Your task to perform on an android device: toggle improve location accuracy Image 0: 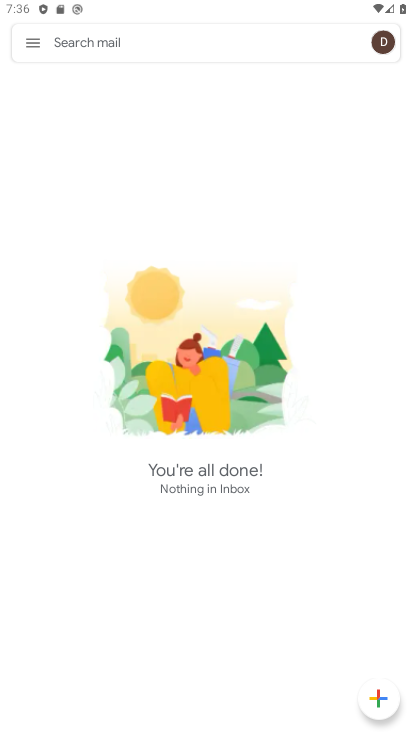
Step 0: press home button
Your task to perform on an android device: toggle improve location accuracy Image 1: 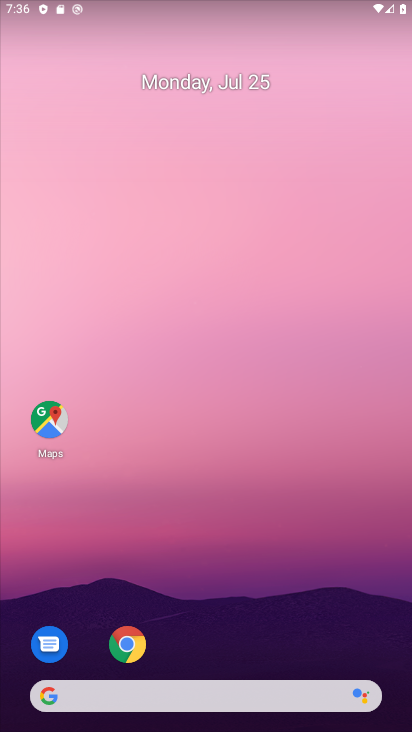
Step 1: drag from (217, 670) to (253, 197)
Your task to perform on an android device: toggle improve location accuracy Image 2: 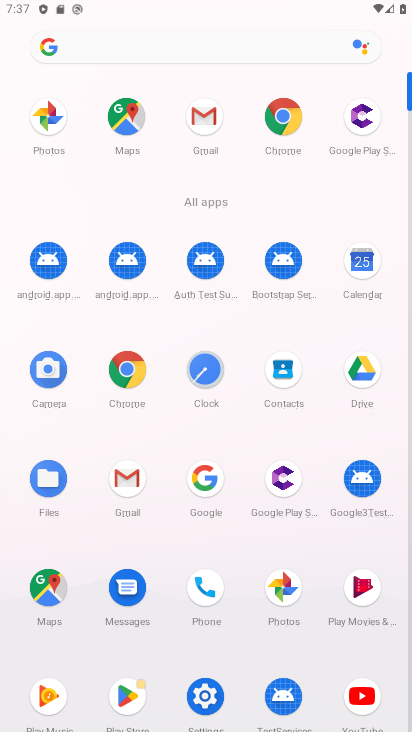
Step 2: click (201, 692)
Your task to perform on an android device: toggle improve location accuracy Image 3: 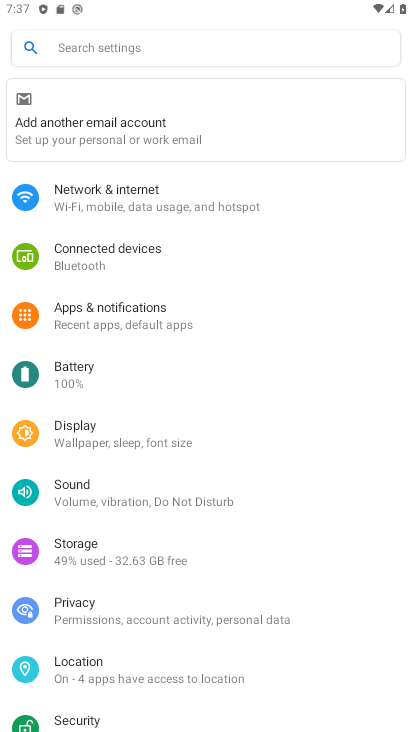
Step 3: click (112, 663)
Your task to perform on an android device: toggle improve location accuracy Image 4: 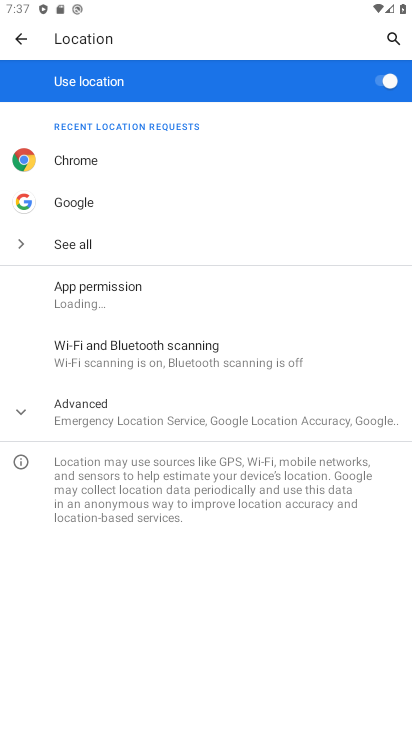
Step 4: click (178, 401)
Your task to perform on an android device: toggle improve location accuracy Image 5: 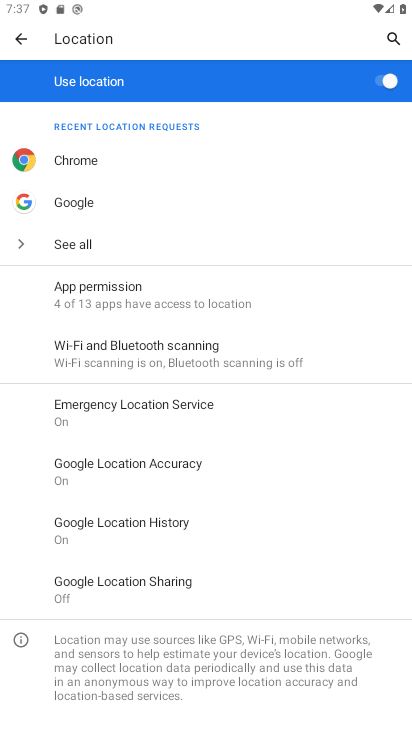
Step 5: click (166, 470)
Your task to perform on an android device: toggle improve location accuracy Image 6: 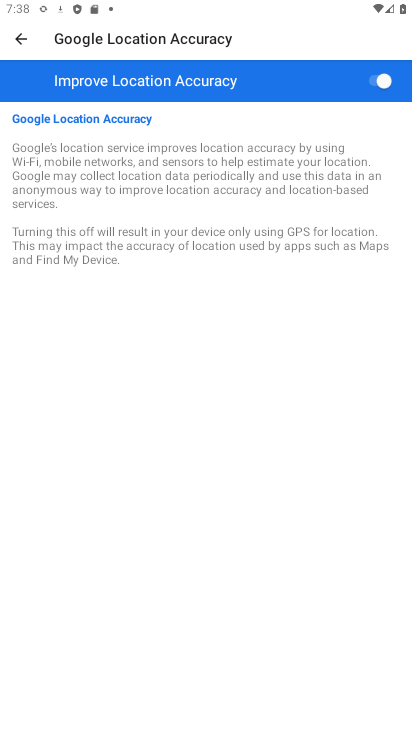
Step 6: task complete